Your task to perform on an android device: uninstall "YouTube Kids" Image 0: 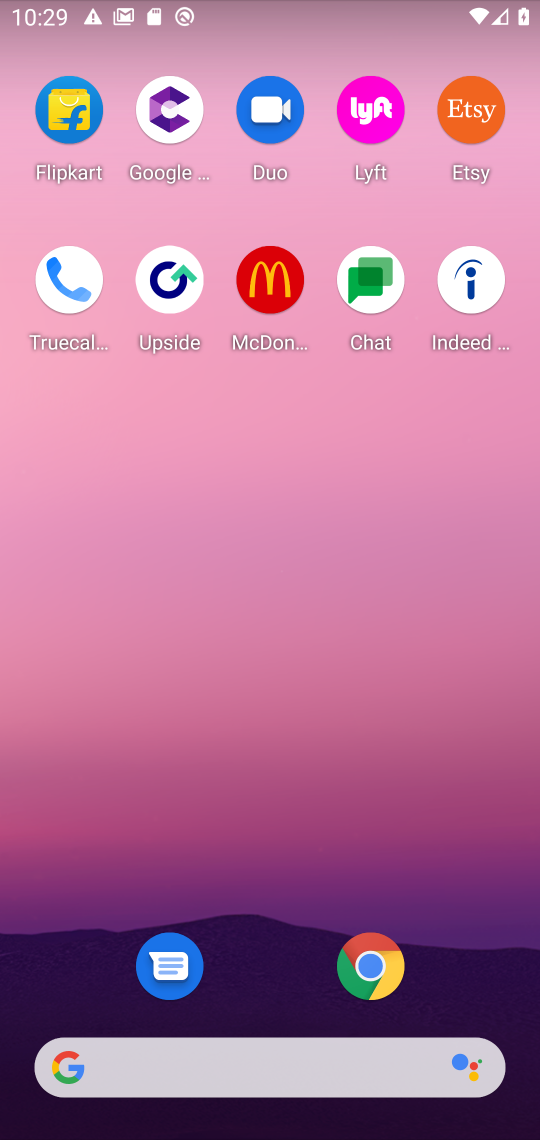
Step 0: click (82, 122)
Your task to perform on an android device: uninstall "YouTube Kids" Image 1: 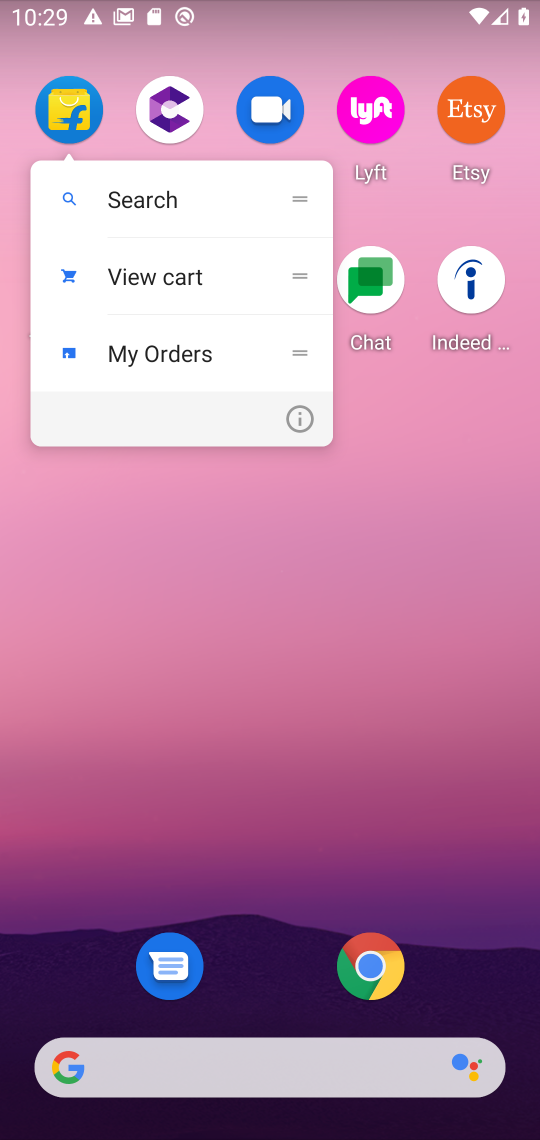
Step 1: click (304, 417)
Your task to perform on an android device: uninstall "YouTube Kids" Image 2: 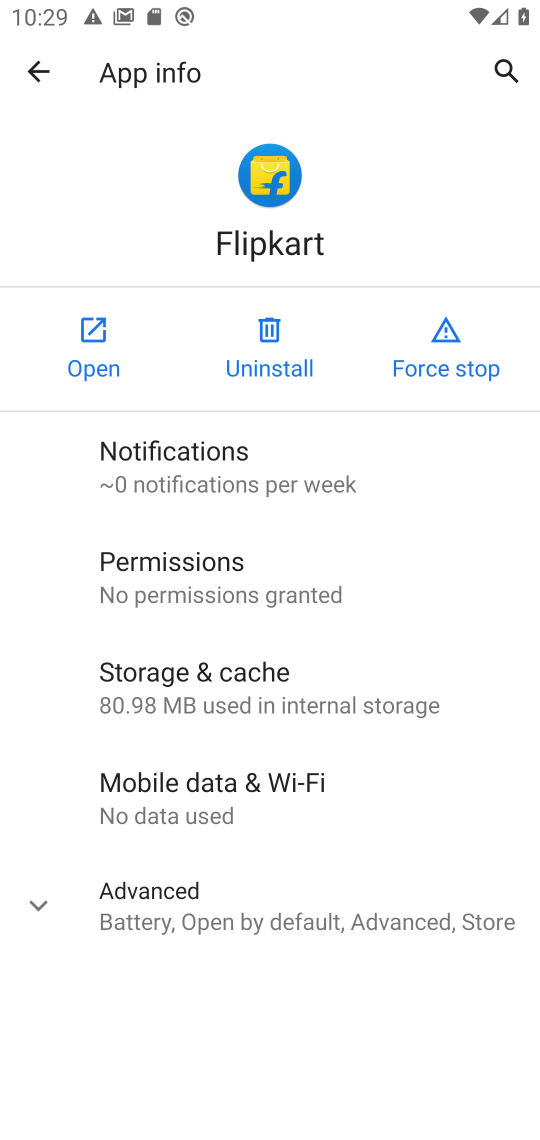
Step 2: click (273, 359)
Your task to perform on an android device: uninstall "YouTube Kids" Image 3: 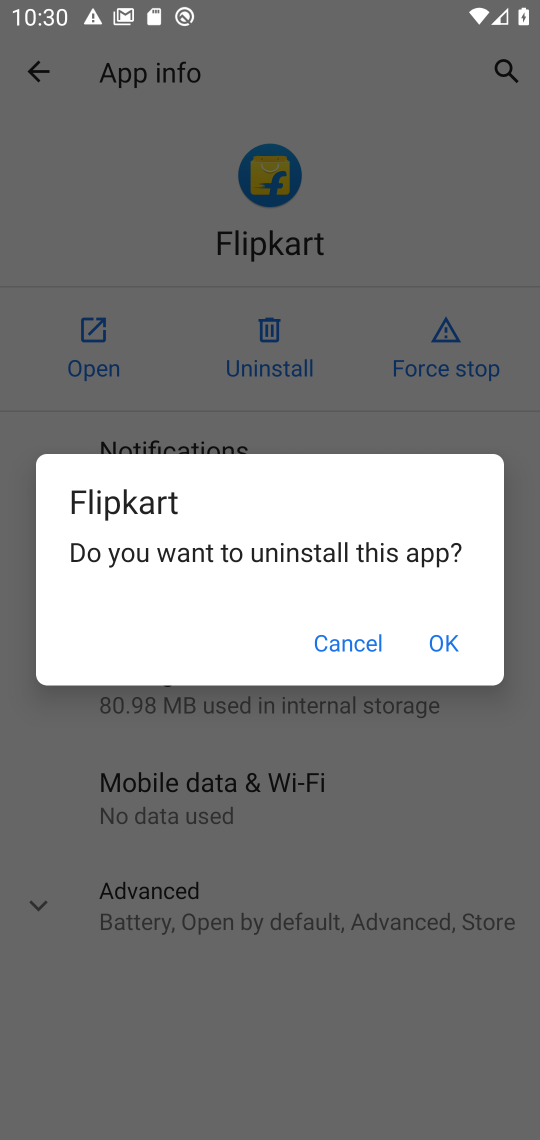
Step 3: click (441, 646)
Your task to perform on an android device: uninstall "YouTube Kids" Image 4: 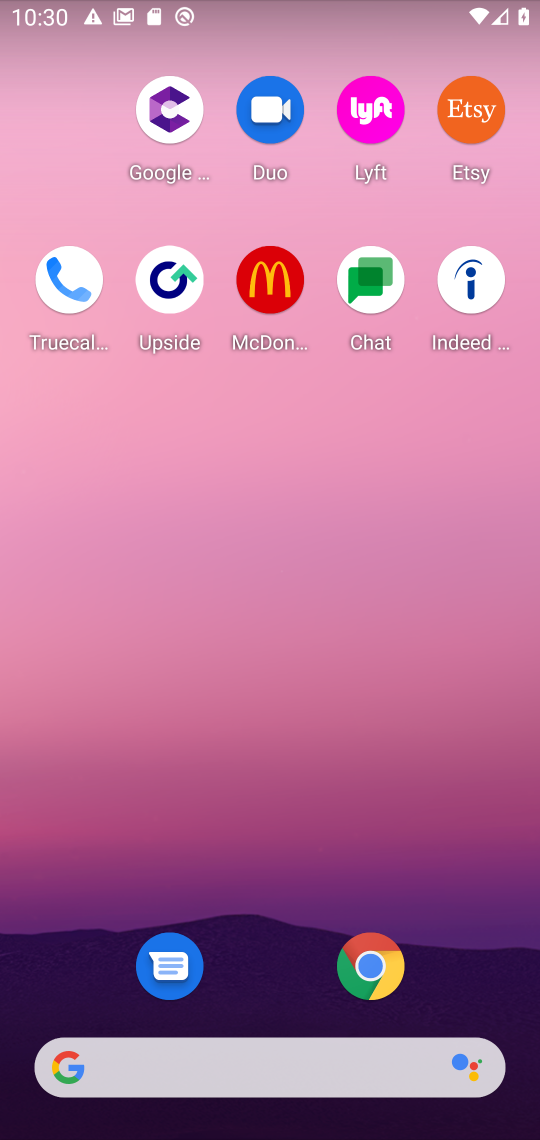
Step 4: task complete